Your task to perform on an android device: Open Chrome and go to the settings page Image 0: 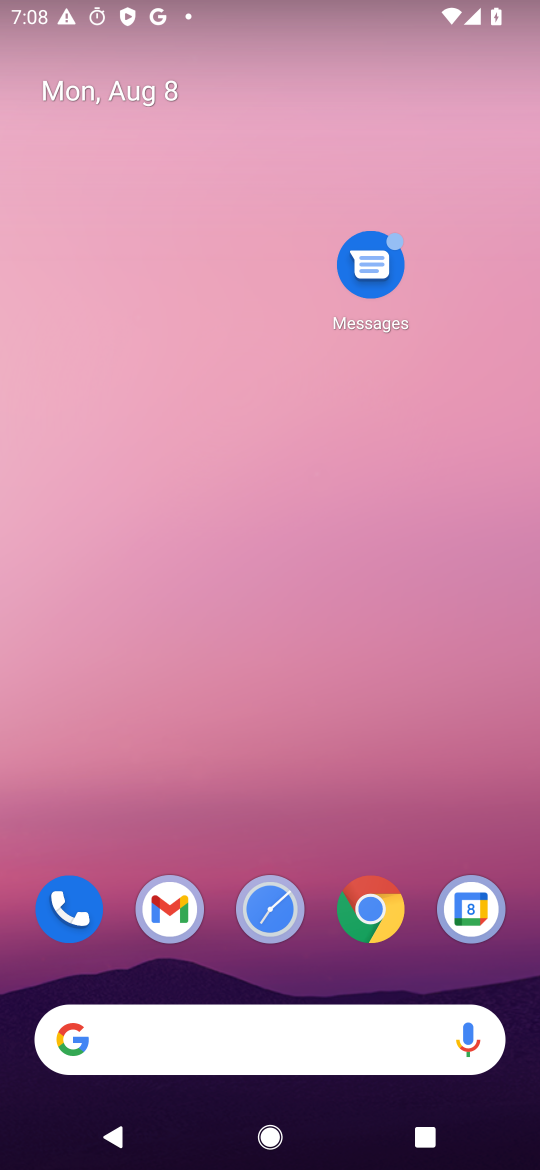
Step 0: press home button
Your task to perform on an android device: Open Chrome and go to the settings page Image 1: 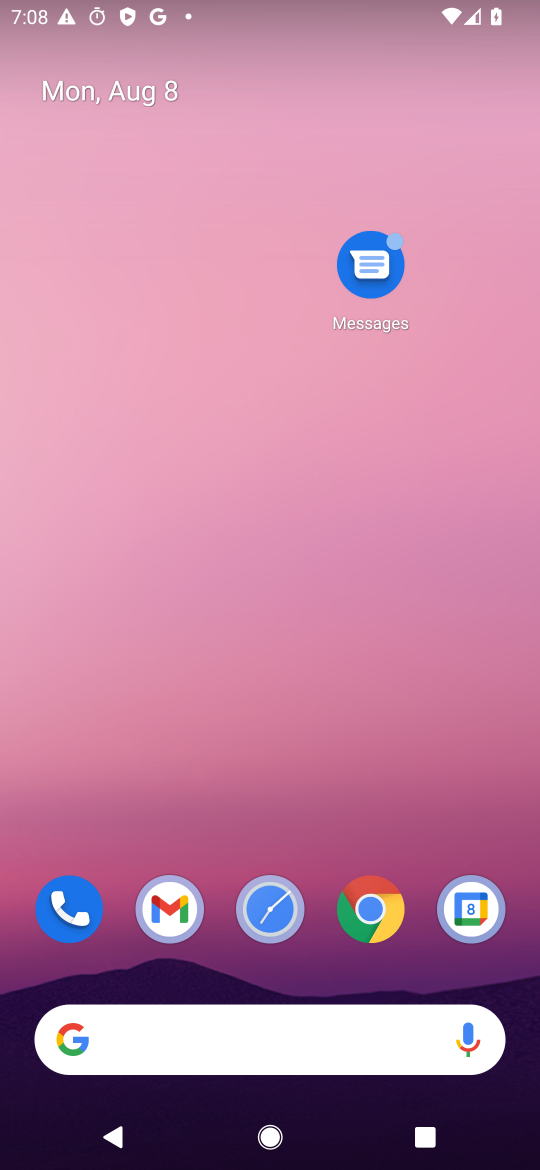
Step 1: click (379, 904)
Your task to perform on an android device: Open Chrome and go to the settings page Image 2: 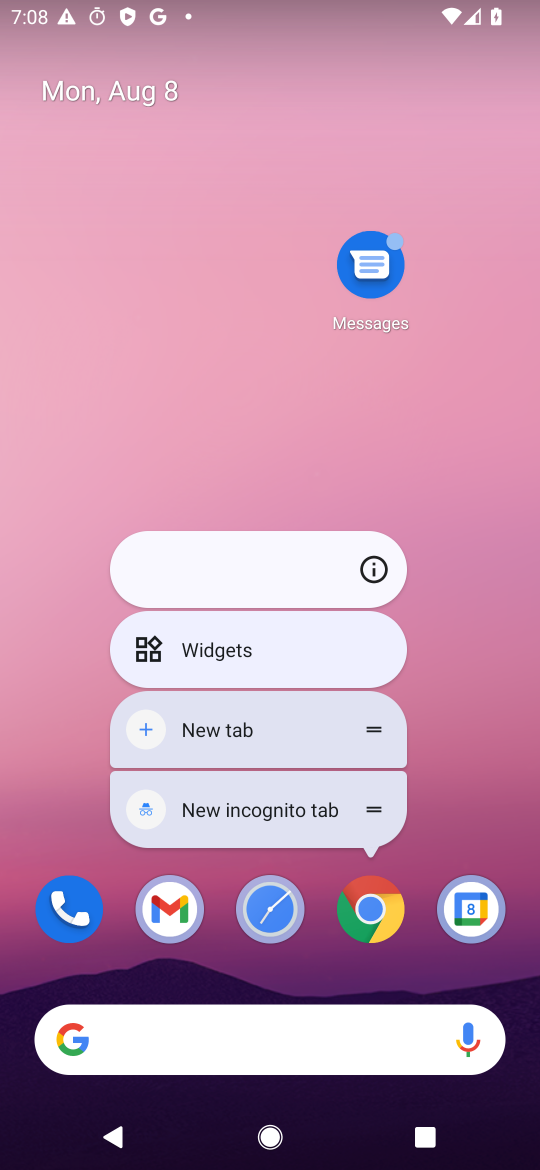
Step 2: click (363, 923)
Your task to perform on an android device: Open Chrome and go to the settings page Image 3: 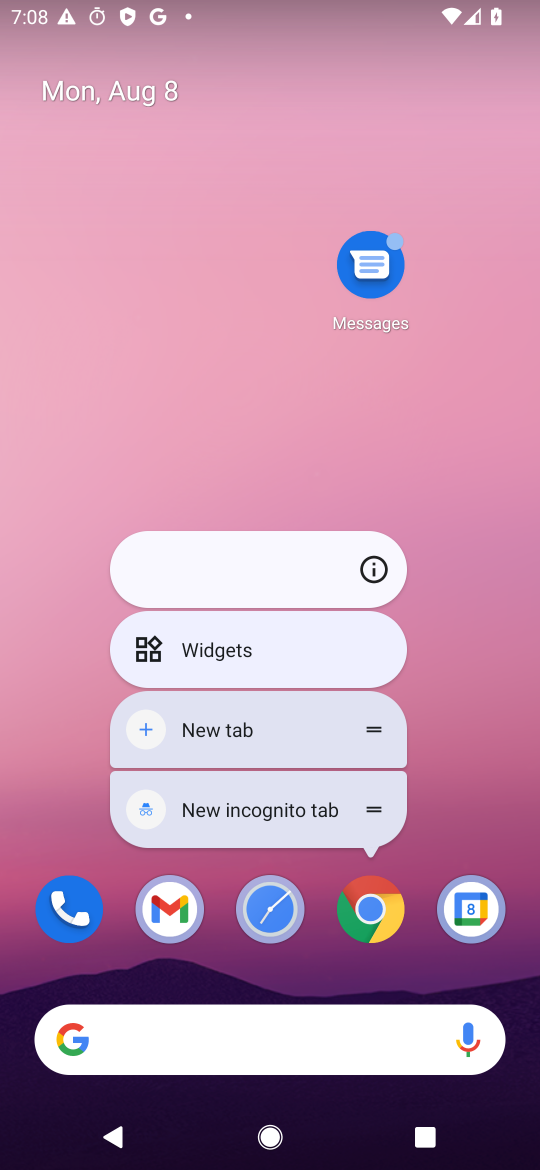
Step 3: click (369, 911)
Your task to perform on an android device: Open Chrome and go to the settings page Image 4: 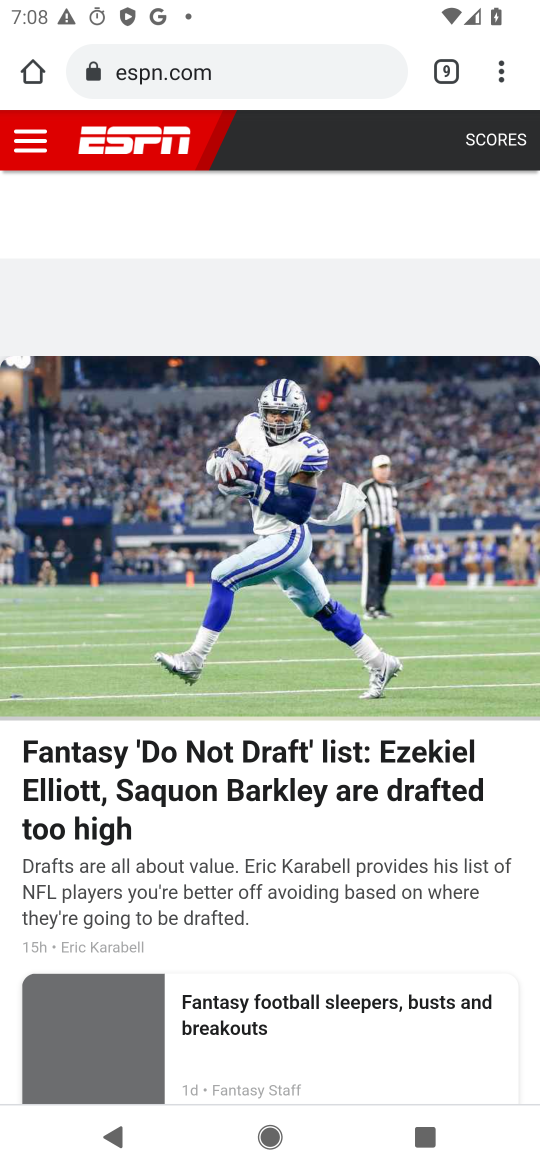
Step 4: task complete